Your task to perform on an android device: Open Reddit.com Image 0: 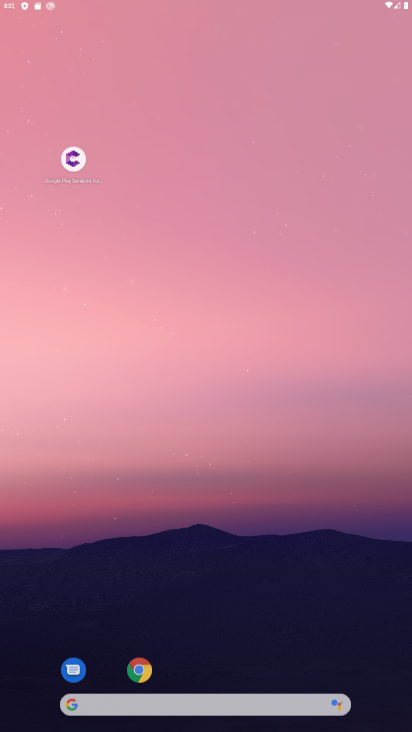
Step 0: click (294, 14)
Your task to perform on an android device: Open Reddit.com Image 1: 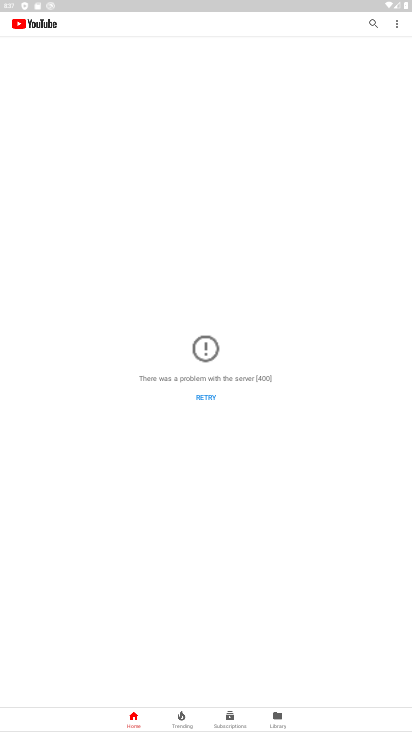
Step 1: press home button
Your task to perform on an android device: Open Reddit.com Image 2: 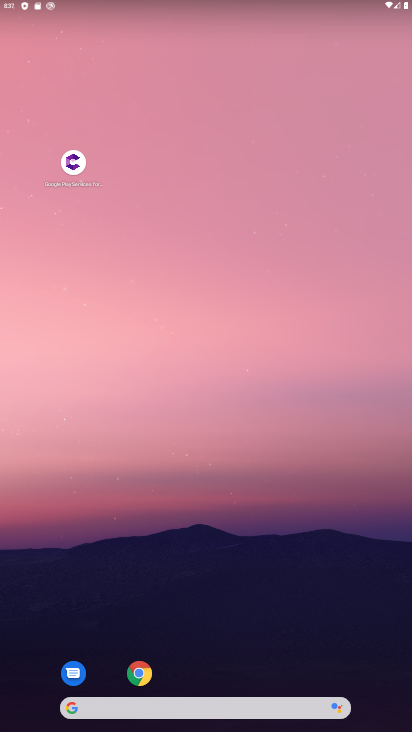
Step 2: drag from (289, 547) to (349, 635)
Your task to perform on an android device: Open Reddit.com Image 3: 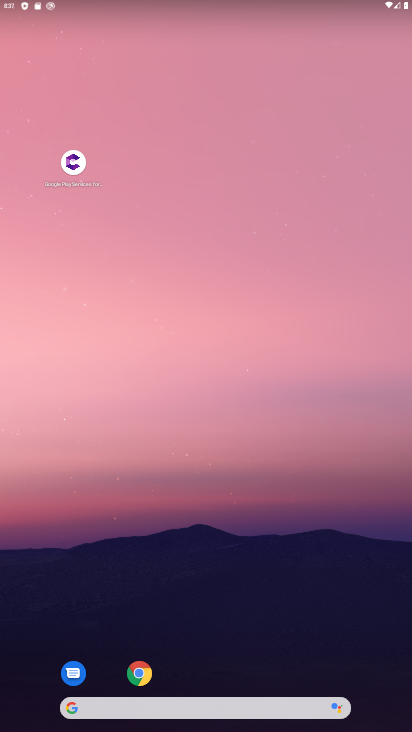
Step 3: click (148, 674)
Your task to perform on an android device: Open Reddit.com Image 4: 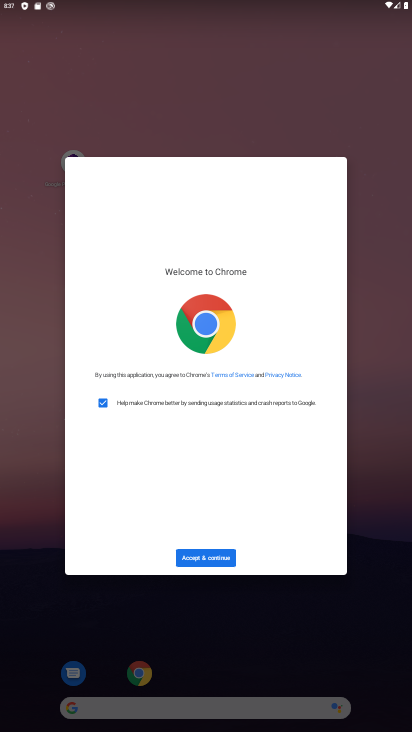
Step 4: click (214, 564)
Your task to perform on an android device: Open Reddit.com Image 5: 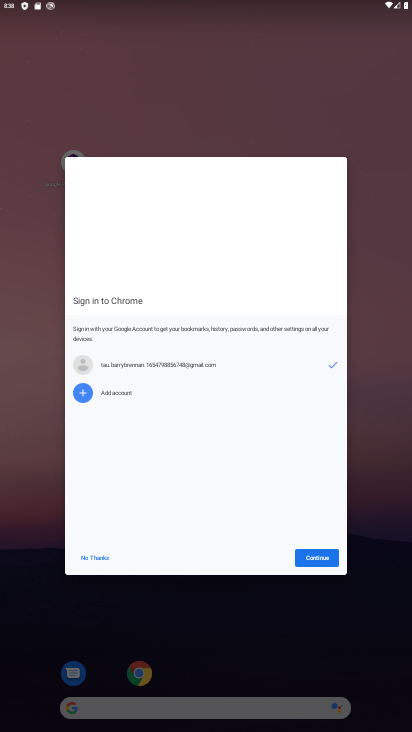
Step 5: click (311, 555)
Your task to perform on an android device: Open Reddit.com Image 6: 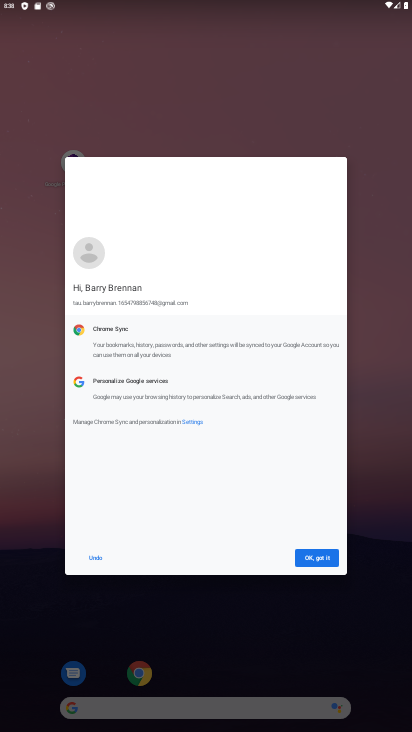
Step 6: click (311, 555)
Your task to perform on an android device: Open Reddit.com Image 7: 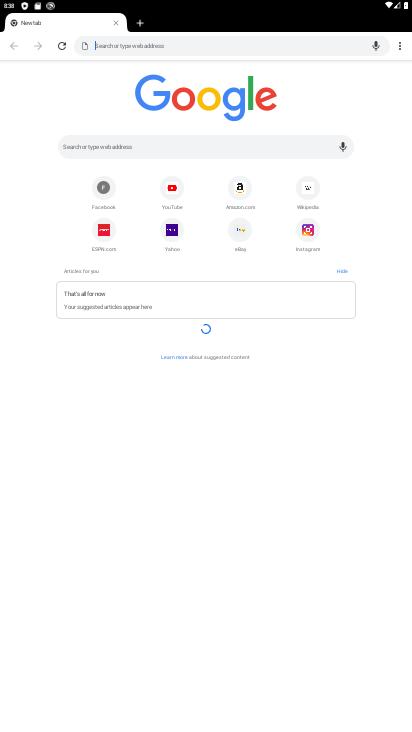
Step 7: click (178, 43)
Your task to perform on an android device: Open Reddit.com Image 8: 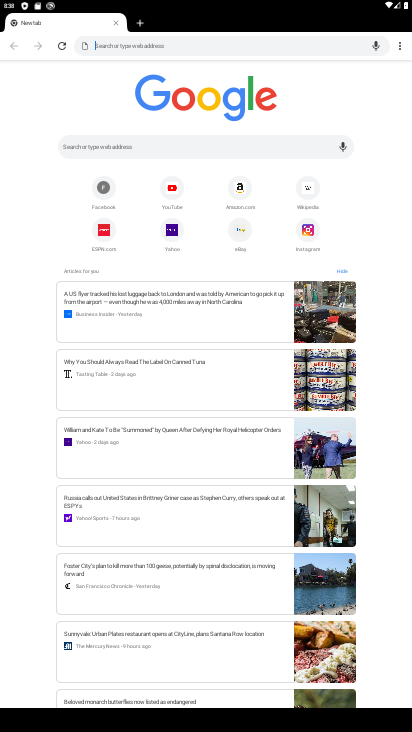
Step 8: type "reddit.com"
Your task to perform on an android device: Open Reddit.com Image 9: 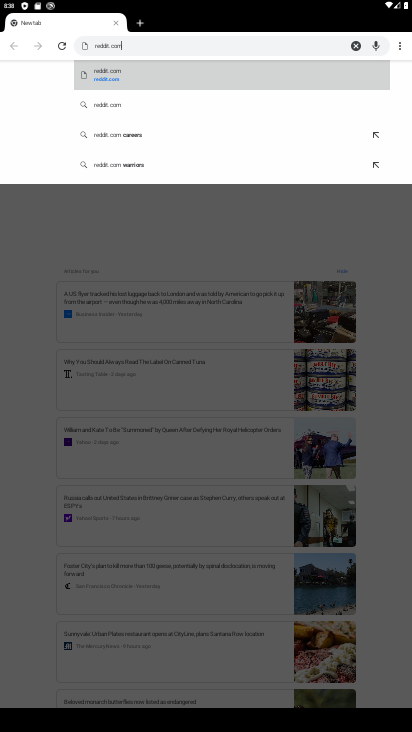
Step 9: click (129, 76)
Your task to perform on an android device: Open Reddit.com Image 10: 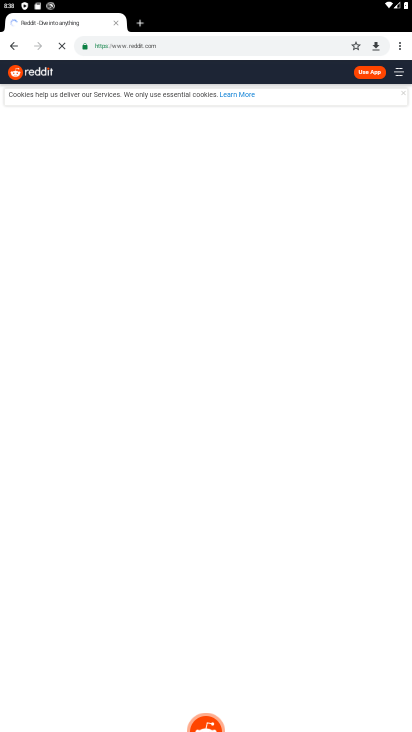
Step 10: task complete